Your task to perform on an android device: toggle notifications settings in the gmail app Image 0: 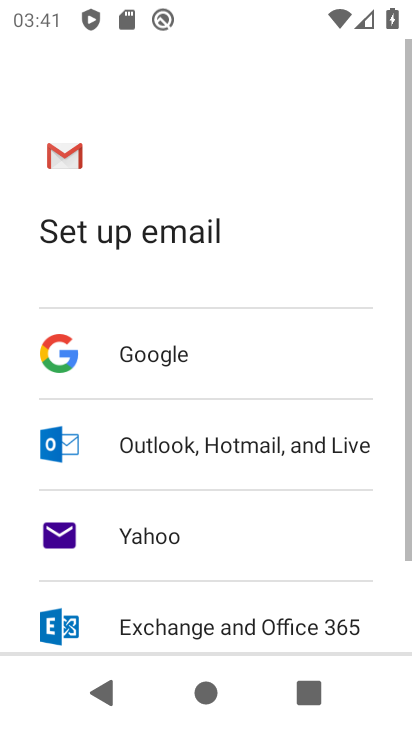
Step 0: press home button
Your task to perform on an android device: toggle notifications settings in the gmail app Image 1: 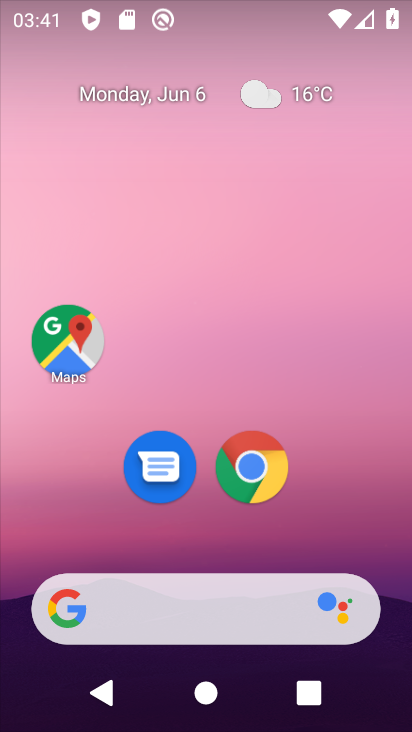
Step 1: drag from (208, 421) to (256, 18)
Your task to perform on an android device: toggle notifications settings in the gmail app Image 2: 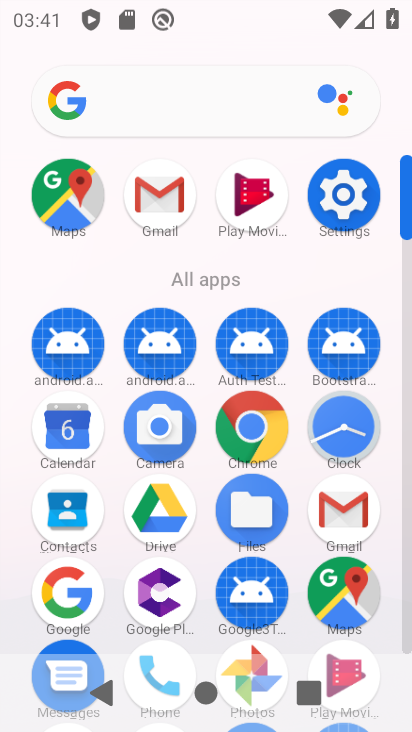
Step 2: click (342, 505)
Your task to perform on an android device: toggle notifications settings in the gmail app Image 3: 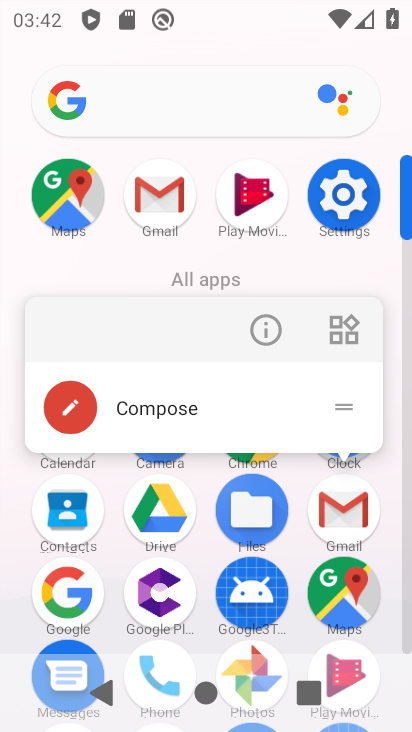
Step 3: click (339, 496)
Your task to perform on an android device: toggle notifications settings in the gmail app Image 4: 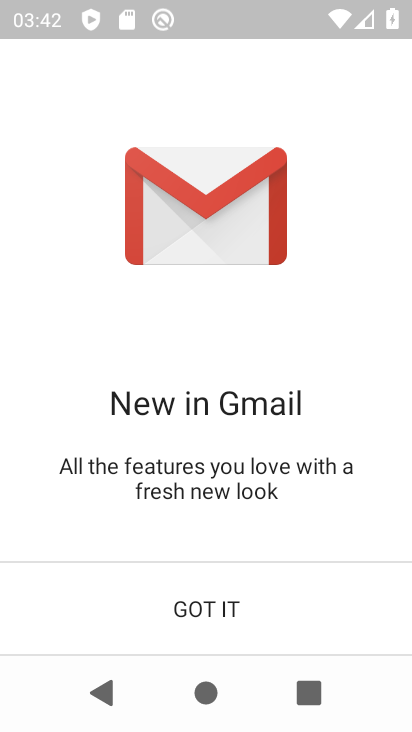
Step 4: click (208, 621)
Your task to perform on an android device: toggle notifications settings in the gmail app Image 5: 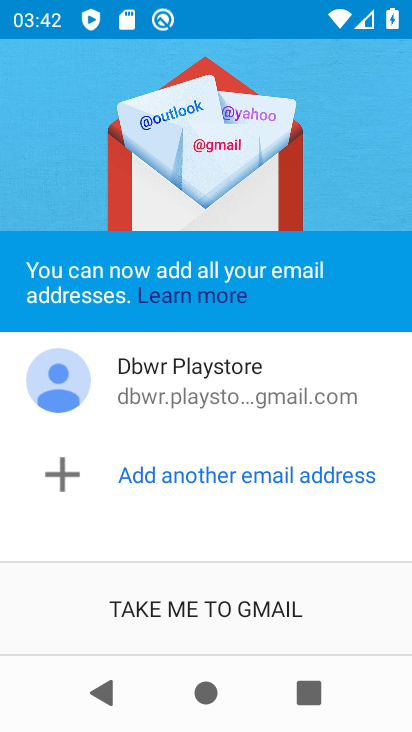
Step 5: click (193, 618)
Your task to perform on an android device: toggle notifications settings in the gmail app Image 6: 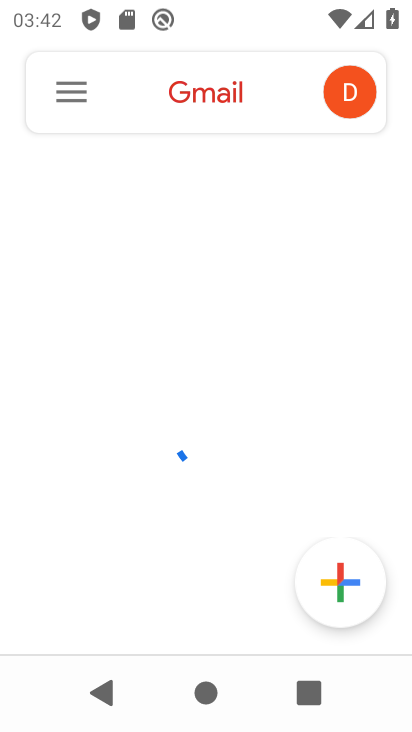
Step 6: click (56, 87)
Your task to perform on an android device: toggle notifications settings in the gmail app Image 7: 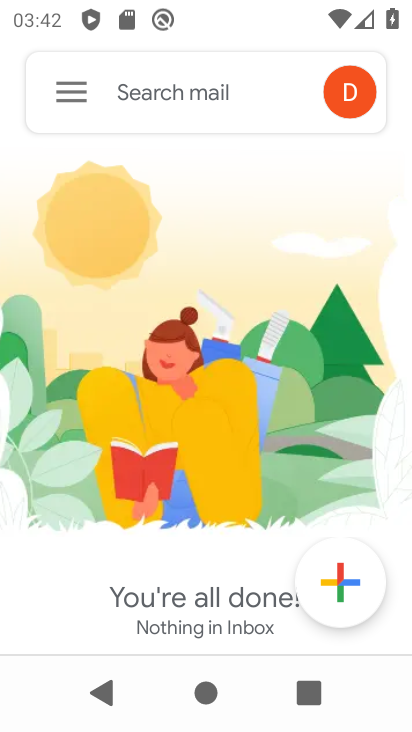
Step 7: click (60, 79)
Your task to perform on an android device: toggle notifications settings in the gmail app Image 8: 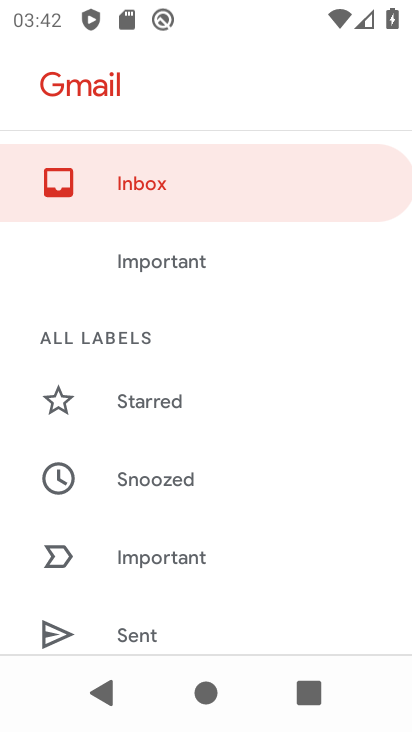
Step 8: drag from (170, 617) to (184, 145)
Your task to perform on an android device: toggle notifications settings in the gmail app Image 9: 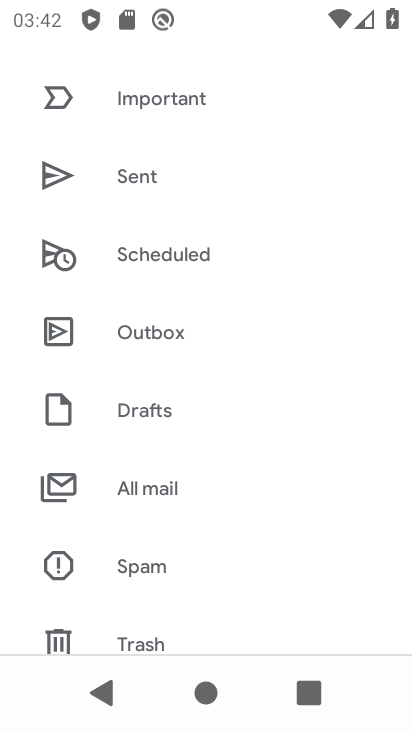
Step 9: drag from (163, 602) to (179, 208)
Your task to perform on an android device: toggle notifications settings in the gmail app Image 10: 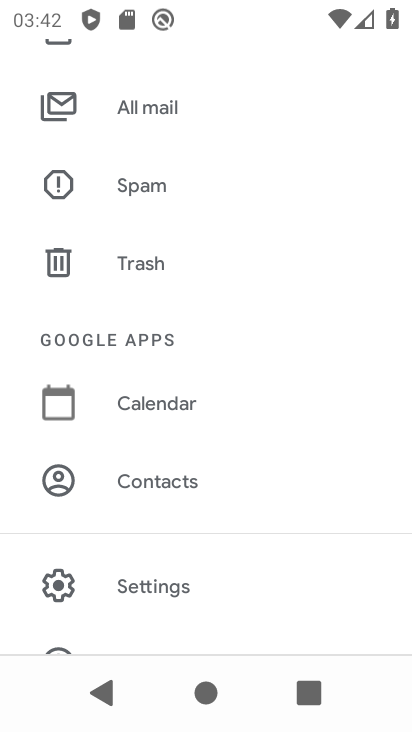
Step 10: drag from (163, 595) to (175, 282)
Your task to perform on an android device: toggle notifications settings in the gmail app Image 11: 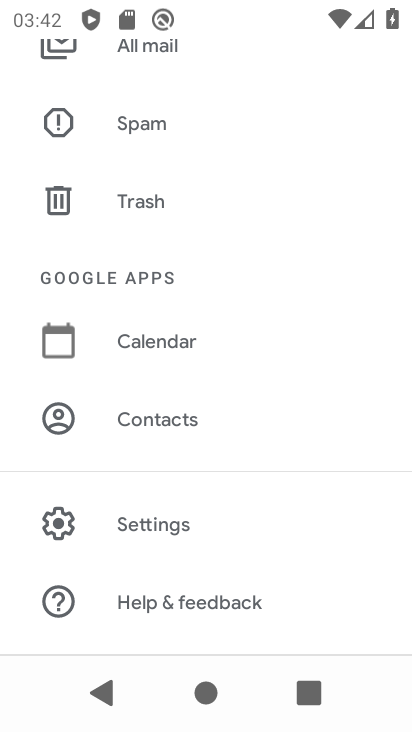
Step 11: click (154, 520)
Your task to perform on an android device: toggle notifications settings in the gmail app Image 12: 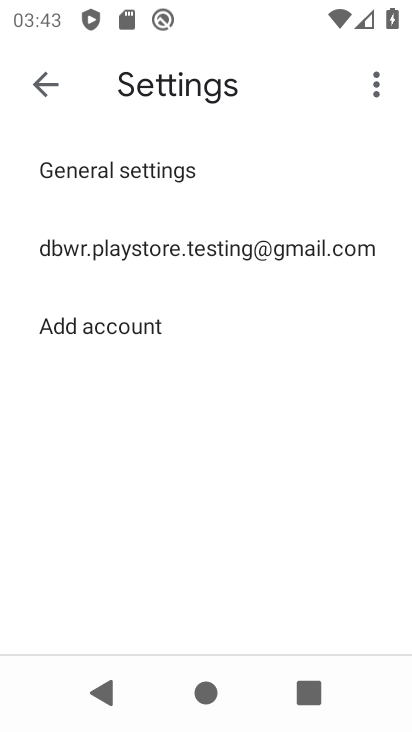
Step 12: click (213, 164)
Your task to perform on an android device: toggle notifications settings in the gmail app Image 13: 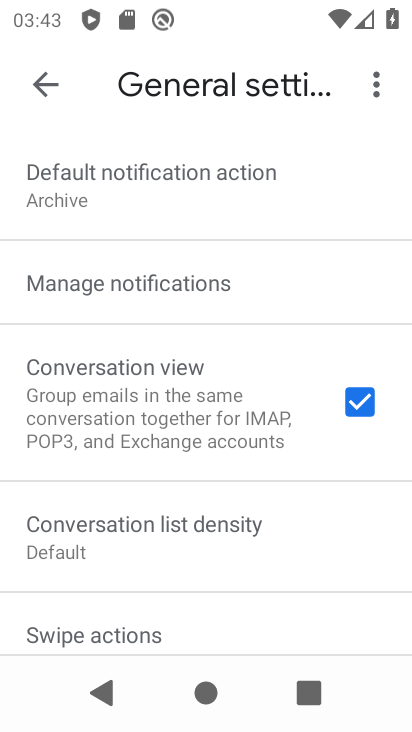
Step 13: click (172, 284)
Your task to perform on an android device: toggle notifications settings in the gmail app Image 14: 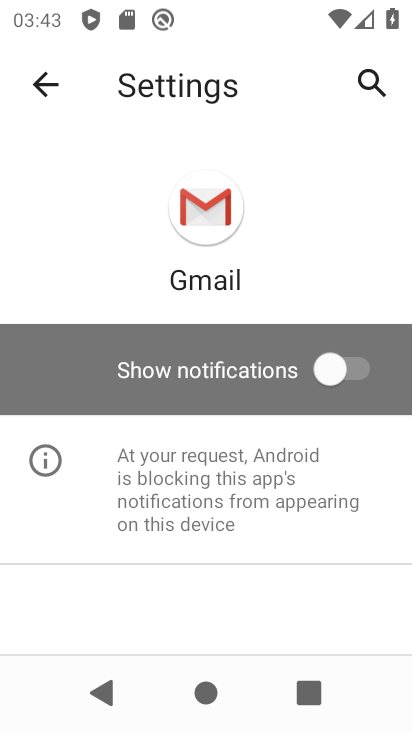
Step 14: click (361, 363)
Your task to perform on an android device: toggle notifications settings in the gmail app Image 15: 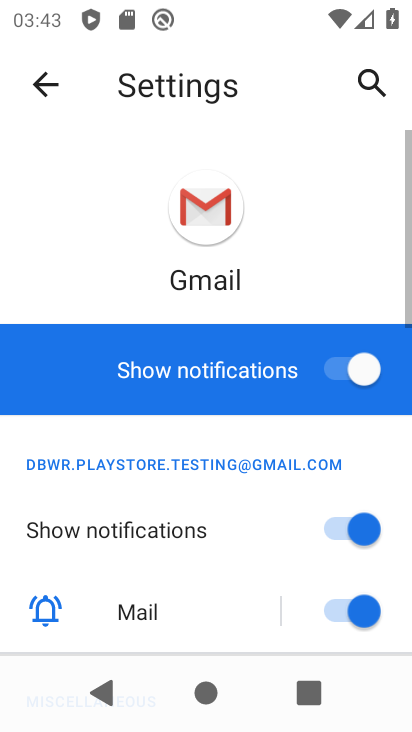
Step 15: task complete